Your task to perform on an android device: What's the weather going to be tomorrow? Image 0: 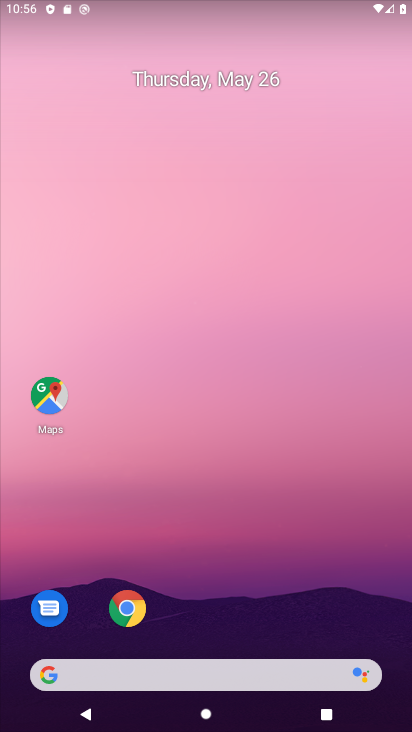
Step 0: drag from (262, 593) to (313, 128)
Your task to perform on an android device: What's the weather going to be tomorrow? Image 1: 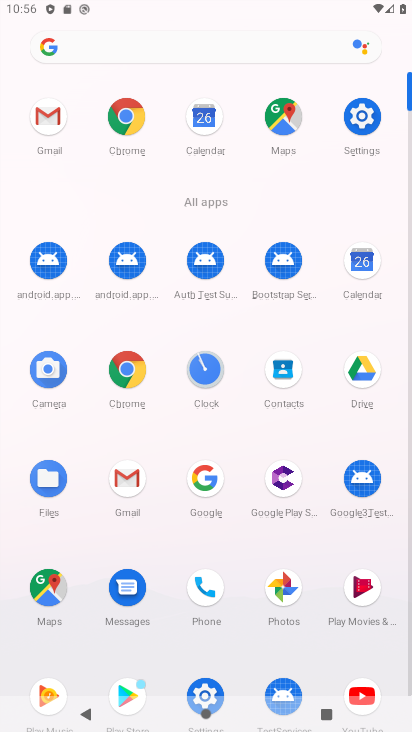
Step 1: click (122, 368)
Your task to perform on an android device: What's the weather going to be tomorrow? Image 2: 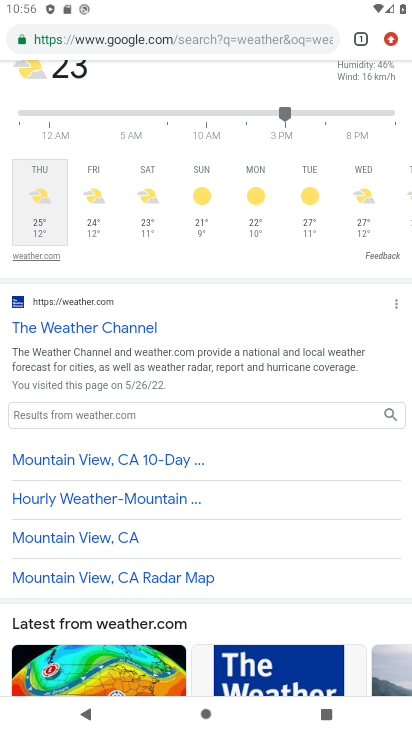
Step 2: drag from (194, 124) to (239, 556)
Your task to perform on an android device: What's the weather going to be tomorrow? Image 3: 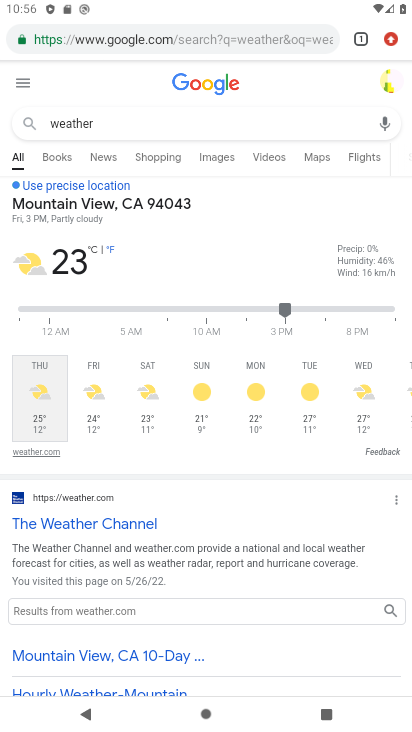
Step 3: click (101, 389)
Your task to perform on an android device: What's the weather going to be tomorrow? Image 4: 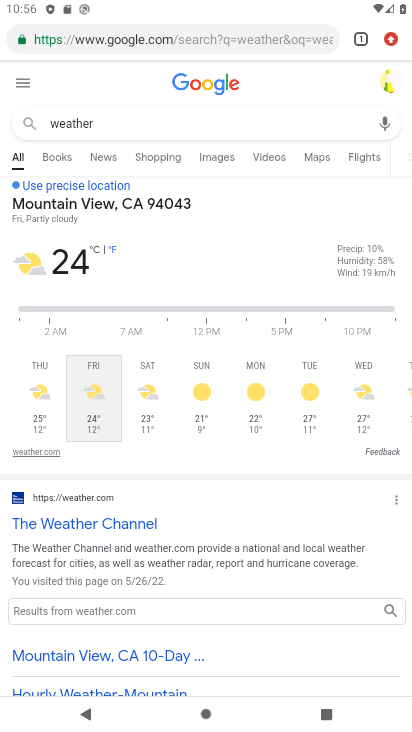
Step 4: task complete